Your task to perform on an android device: search for starred emails in the gmail app Image 0: 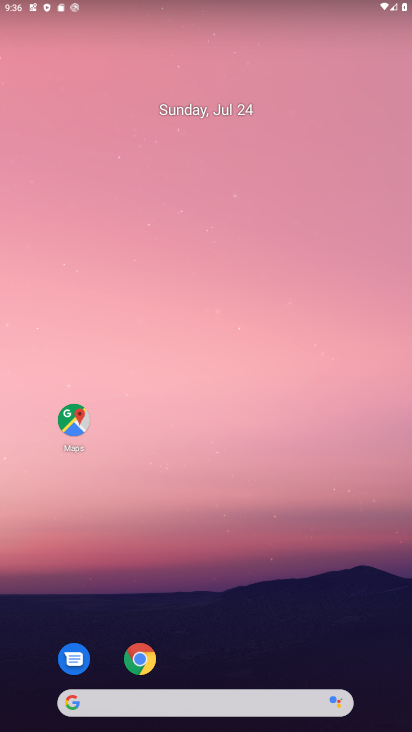
Step 0: drag from (394, 715) to (347, 185)
Your task to perform on an android device: search for starred emails in the gmail app Image 1: 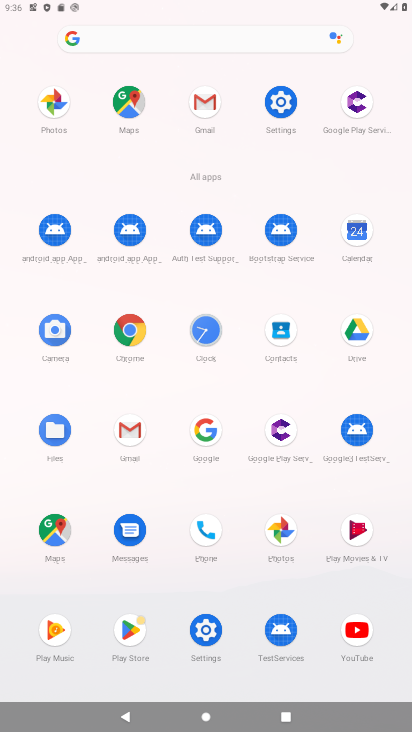
Step 1: click (205, 433)
Your task to perform on an android device: search for starred emails in the gmail app Image 2: 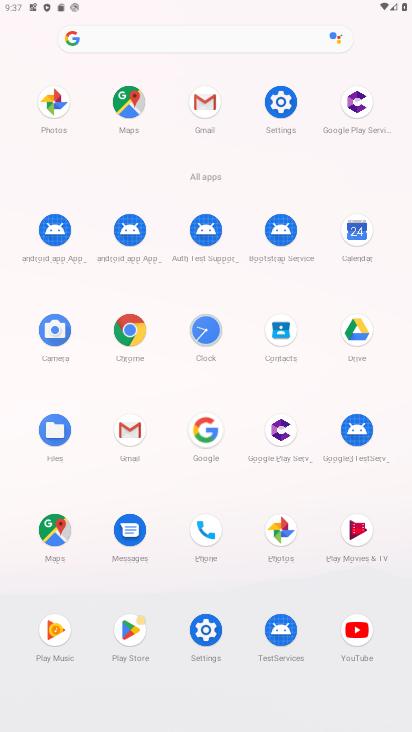
Step 2: press home button
Your task to perform on an android device: search for starred emails in the gmail app Image 3: 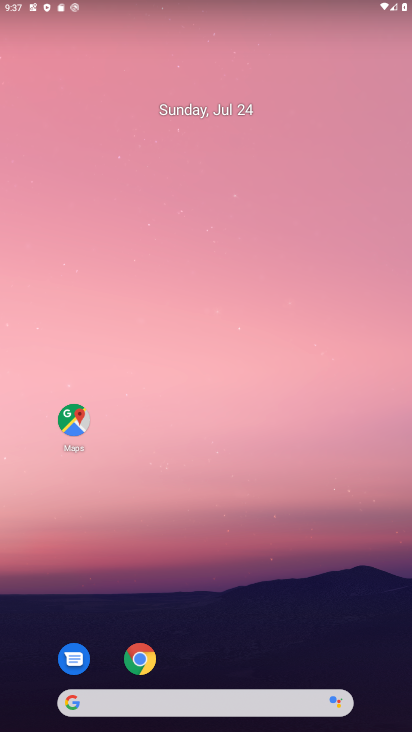
Step 3: drag from (388, 713) to (309, 116)
Your task to perform on an android device: search for starred emails in the gmail app Image 4: 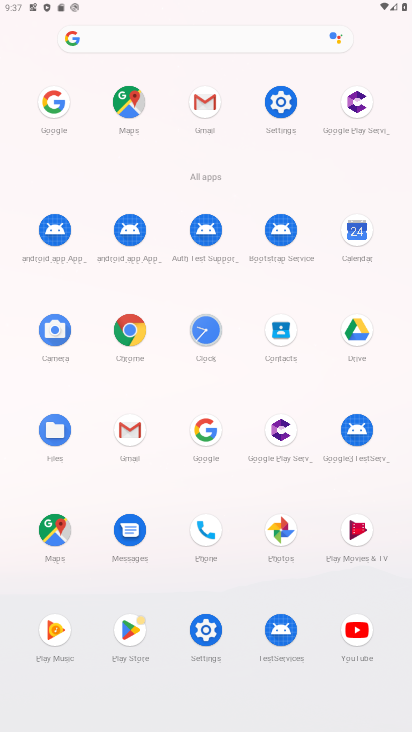
Step 4: click (132, 437)
Your task to perform on an android device: search for starred emails in the gmail app Image 5: 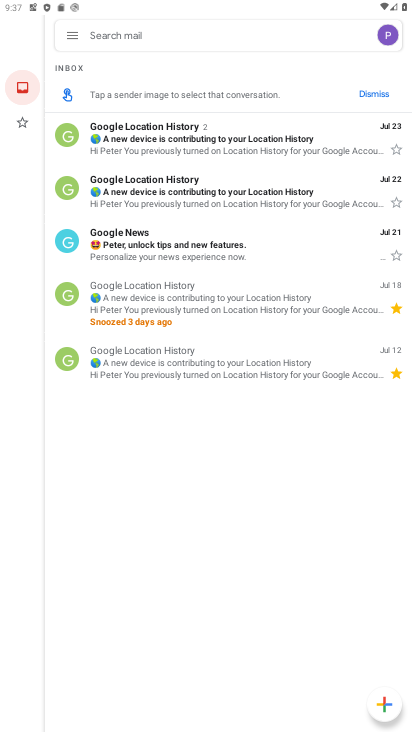
Step 5: click (75, 31)
Your task to perform on an android device: search for starred emails in the gmail app Image 6: 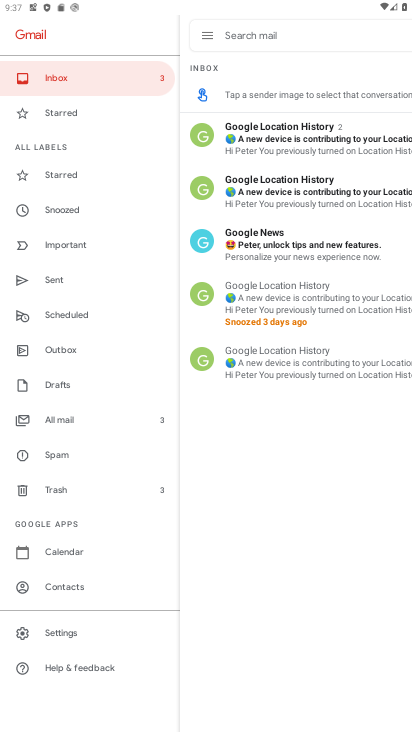
Step 6: click (65, 176)
Your task to perform on an android device: search for starred emails in the gmail app Image 7: 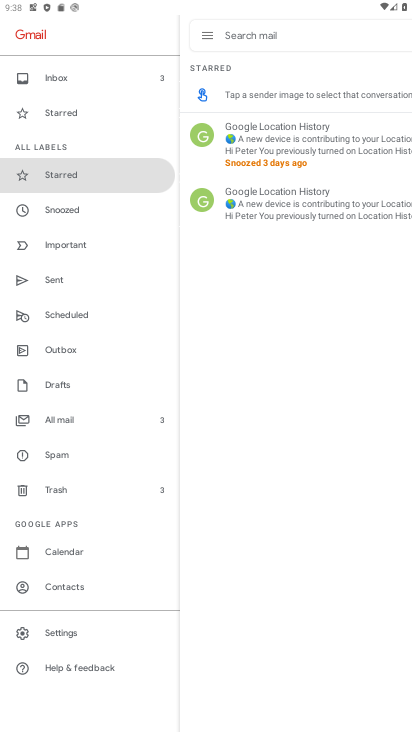
Step 7: task complete